Your task to perform on an android device: Open the web browser Image 0: 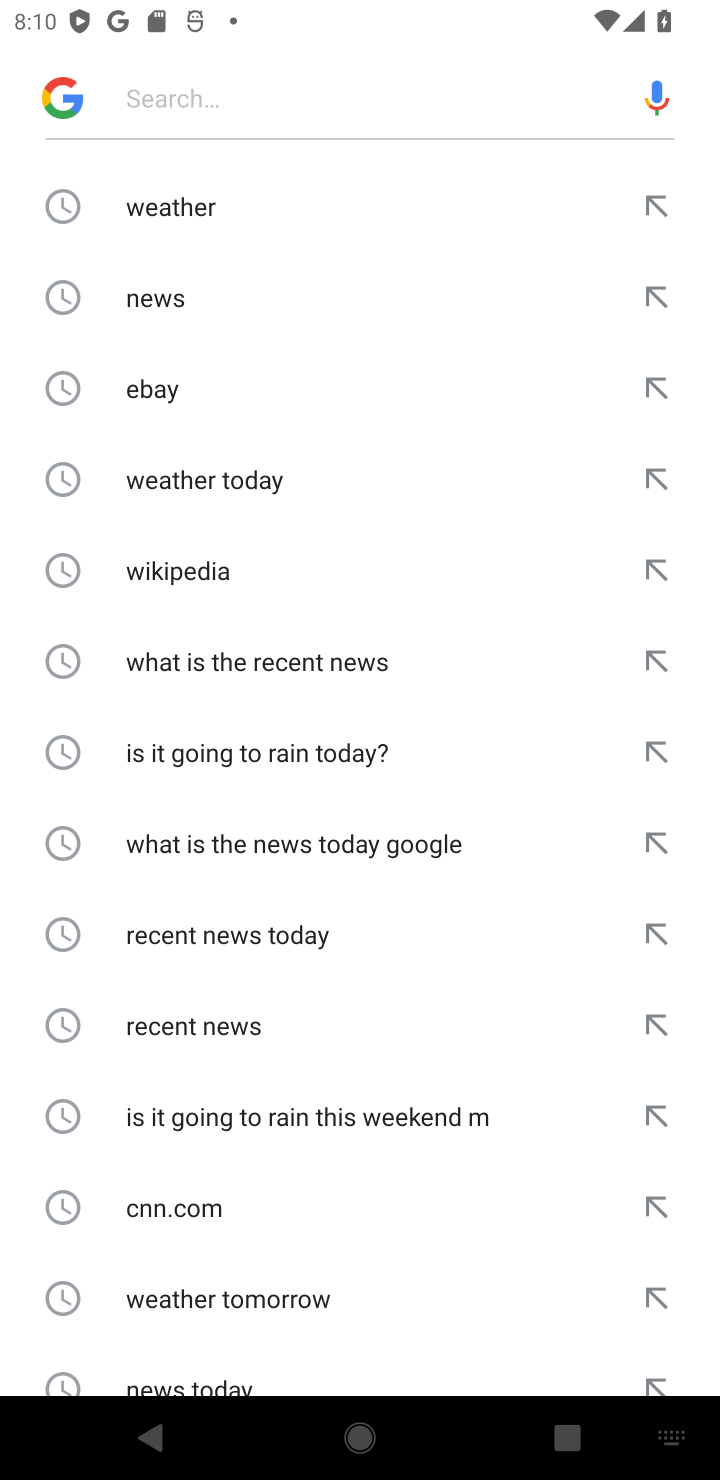
Step 0: press home button
Your task to perform on an android device: Open the web browser Image 1: 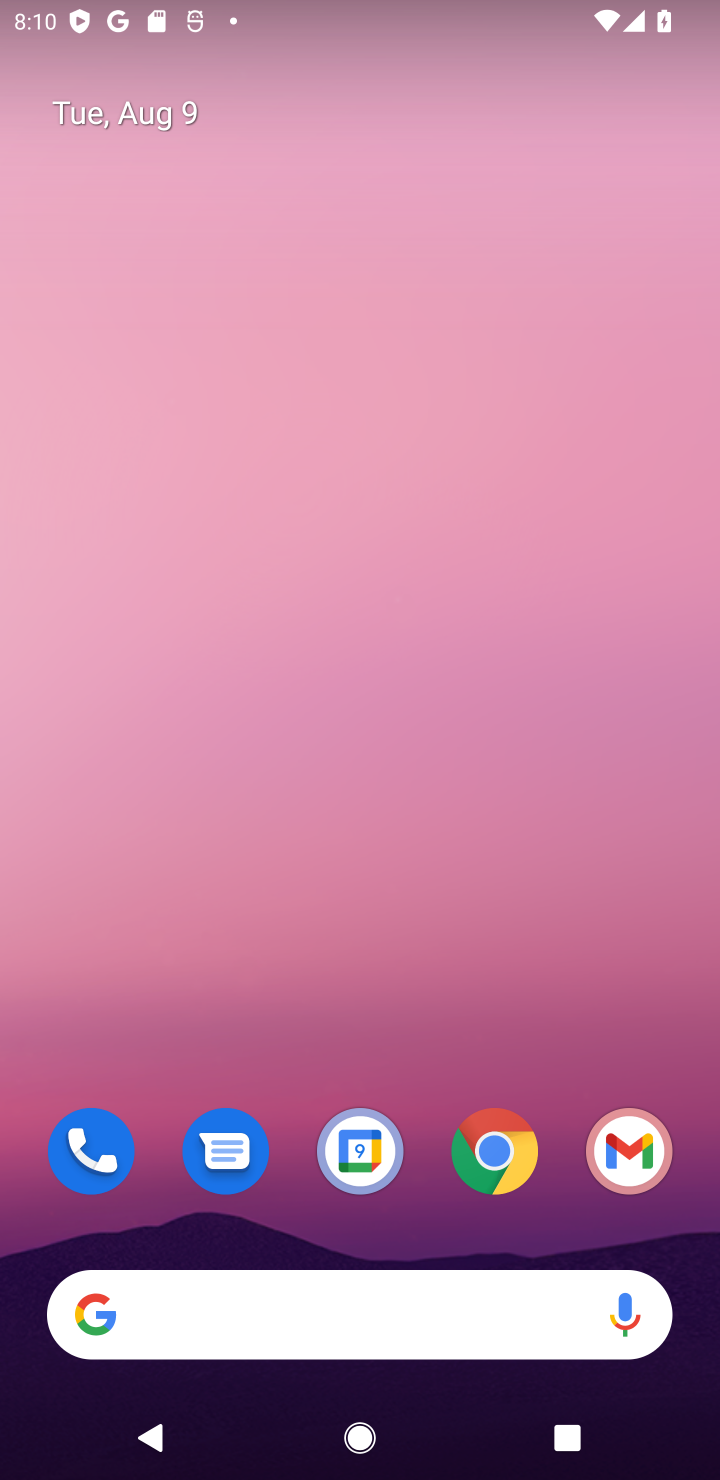
Step 1: click (478, 1150)
Your task to perform on an android device: Open the web browser Image 2: 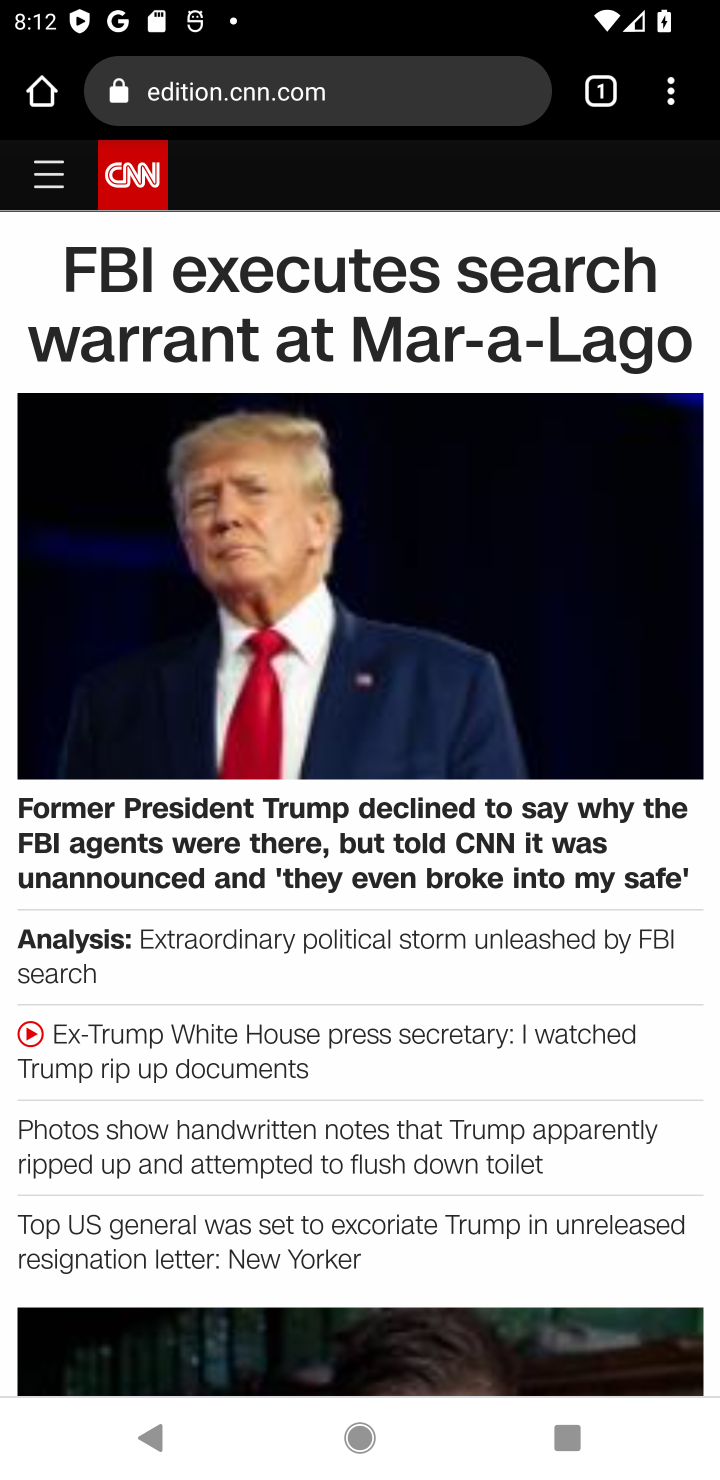
Step 2: task complete